Your task to perform on an android device: Go to notification settings Image 0: 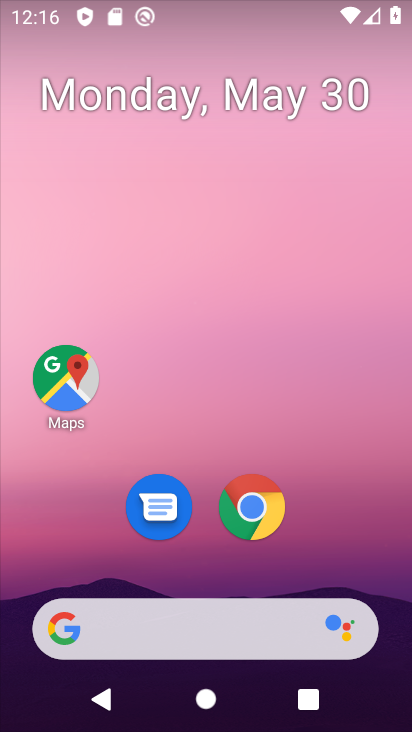
Step 0: drag from (332, 468) to (356, 222)
Your task to perform on an android device: Go to notification settings Image 1: 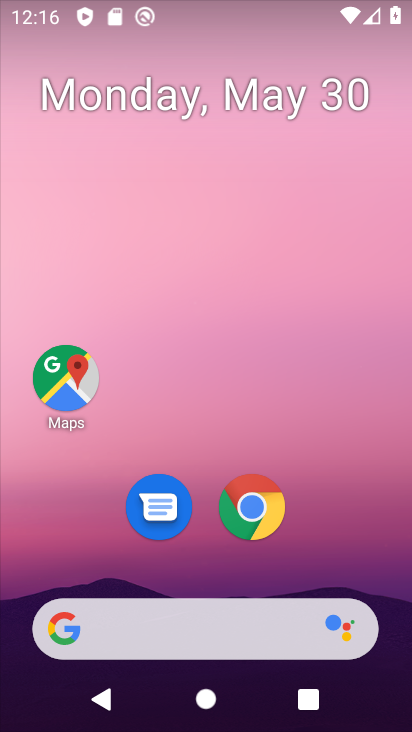
Step 1: drag from (310, 586) to (294, 177)
Your task to perform on an android device: Go to notification settings Image 2: 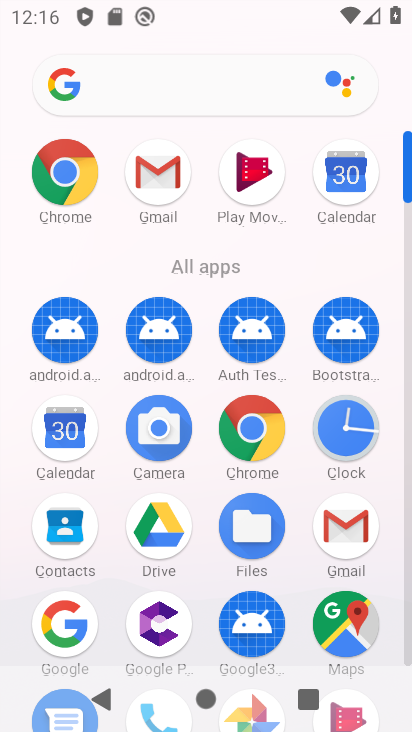
Step 2: drag from (211, 594) to (249, 256)
Your task to perform on an android device: Go to notification settings Image 3: 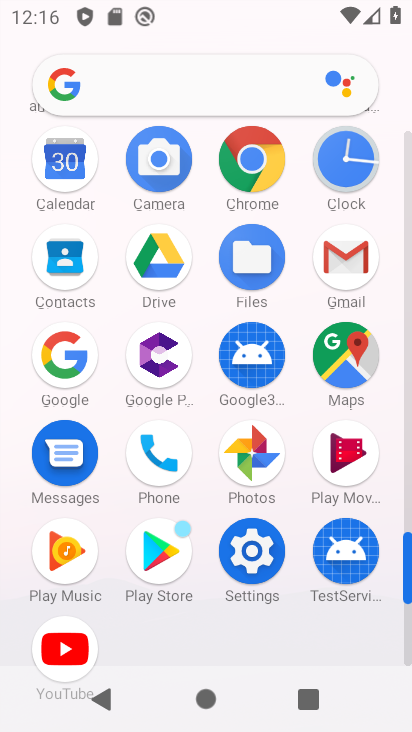
Step 3: click (251, 557)
Your task to perform on an android device: Go to notification settings Image 4: 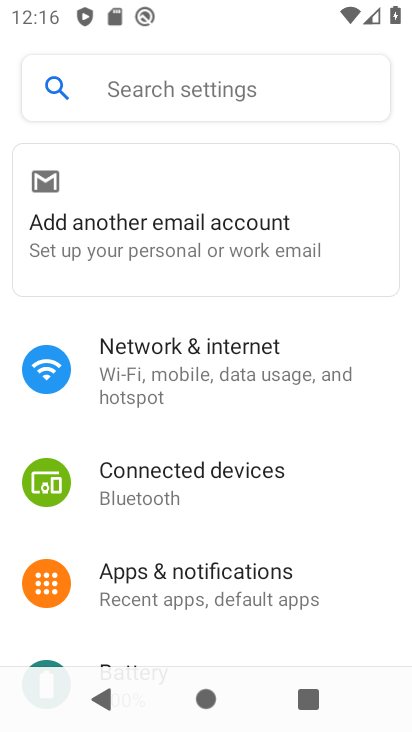
Step 4: click (202, 357)
Your task to perform on an android device: Go to notification settings Image 5: 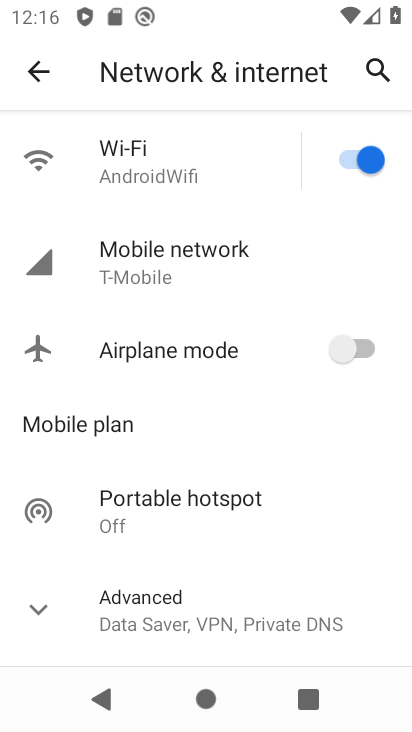
Step 5: click (31, 55)
Your task to perform on an android device: Go to notification settings Image 6: 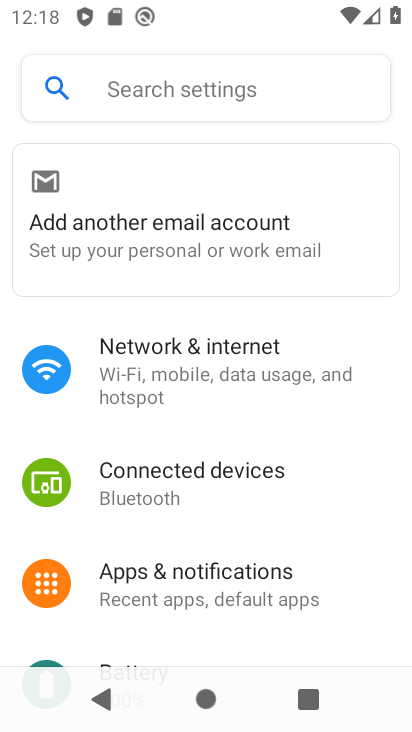
Step 6: click (294, 587)
Your task to perform on an android device: Go to notification settings Image 7: 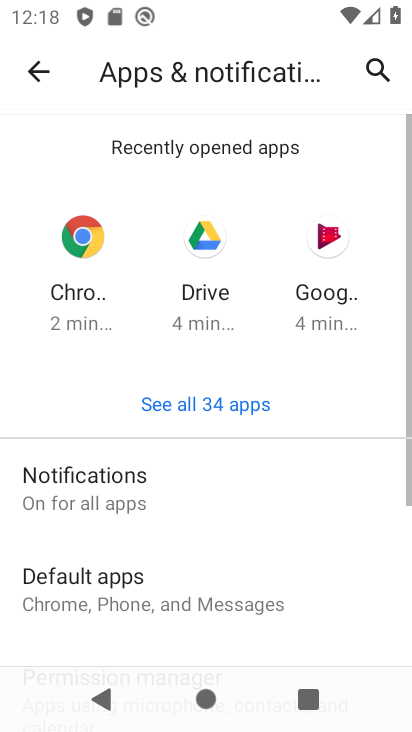
Step 7: click (177, 464)
Your task to perform on an android device: Go to notification settings Image 8: 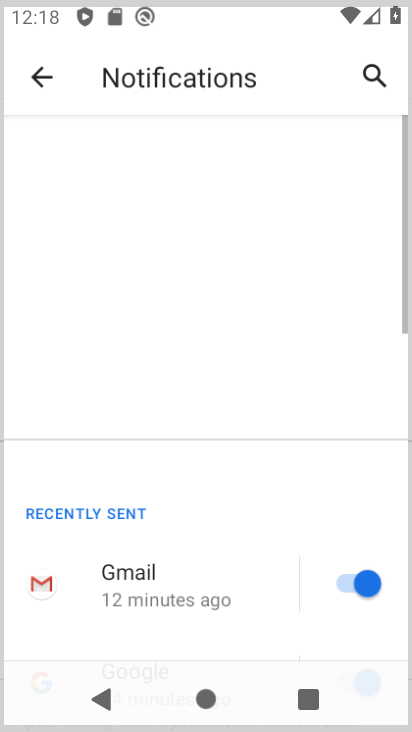
Step 8: task complete